Your task to perform on an android device: change notifications settings Image 0: 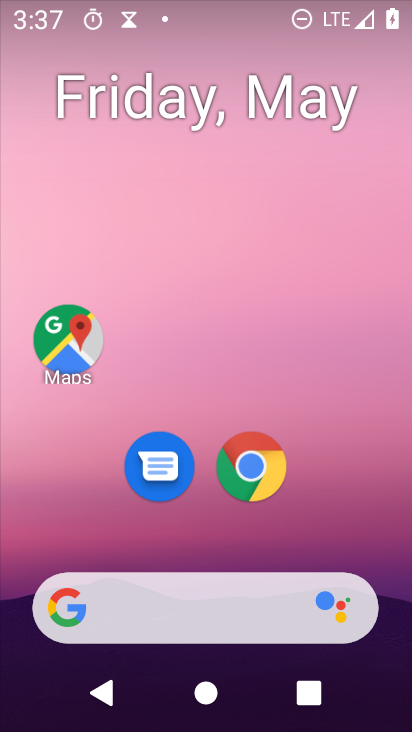
Step 0: drag from (382, 519) to (348, 58)
Your task to perform on an android device: change notifications settings Image 1: 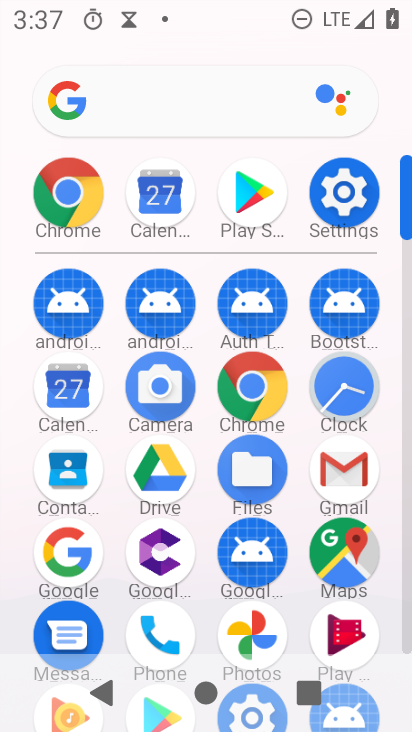
Step 1: click (334, 186)
Your task to perform on an android device: change notifications settings Image 2: 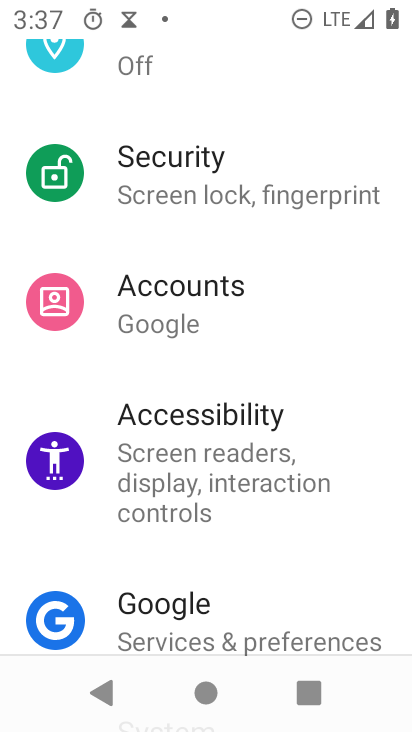
Step 2: drag from (216, 221) to (224, 577)
Your task to perform on an android device: change notifications settings Image 3: 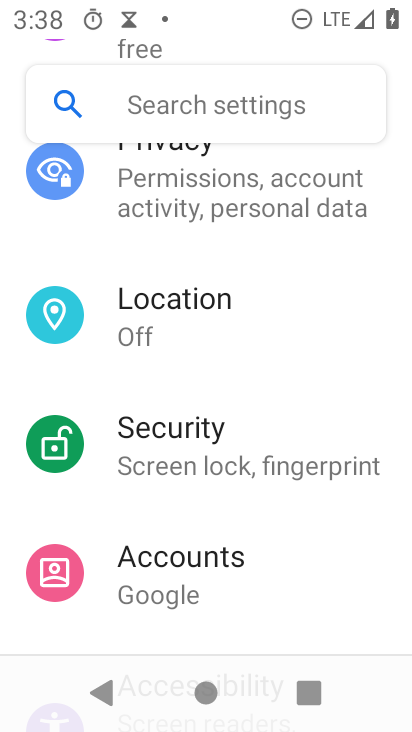
Step 3: drag from (261, 251) to (287, 597)
Your task to perform on an android device: change notifications settings Image 4: 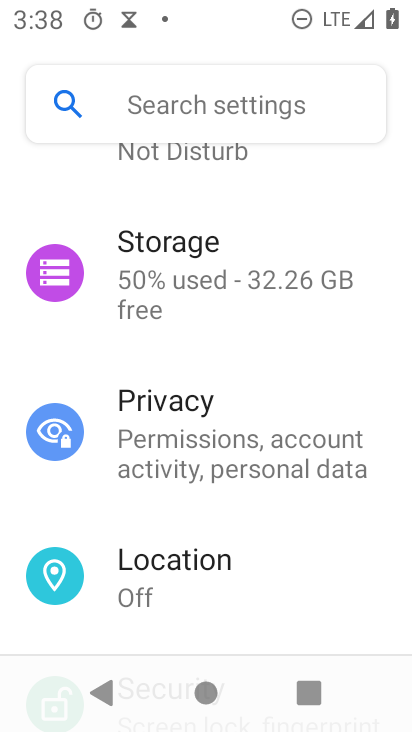
Step 4: drag from (257, 247) to (277, 638)
Your task to perform on an android device: change notifications settings Image 5: 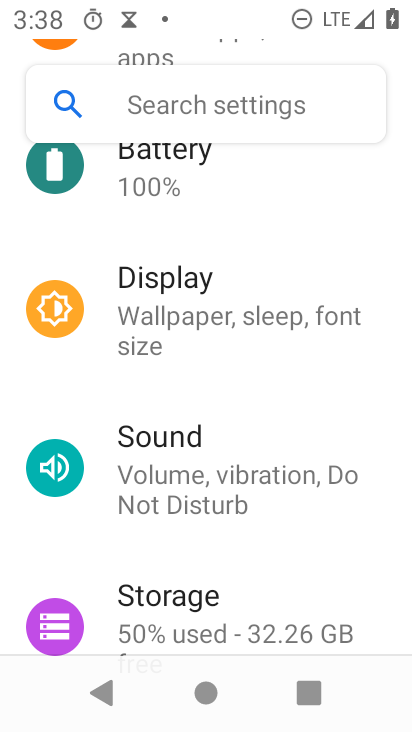
Step 5: drag from (247, 202) to (268, 699)
Your task to perform on an android device: change notifications settings Image 6: 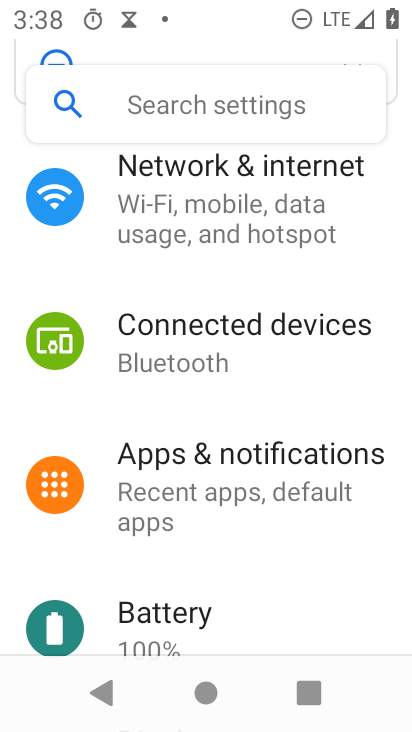
Step 6: click (273, 448)
Your task to perform on an android device: change notifications settings Image 7: 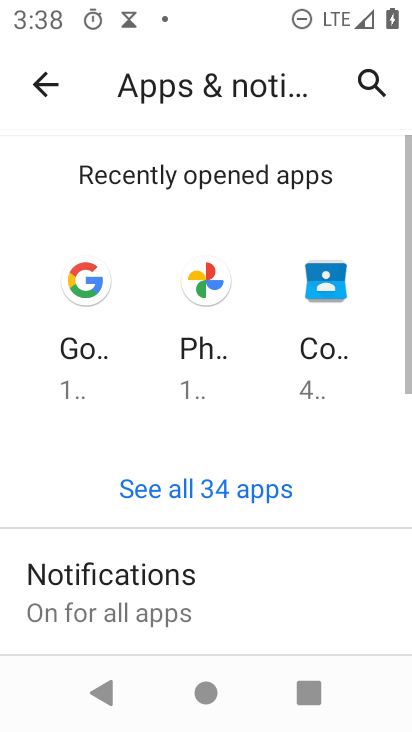
Step 7: drag from (223, 590) to (241, 232)
Your task to perform on an android device: change notifications settings Image 8: 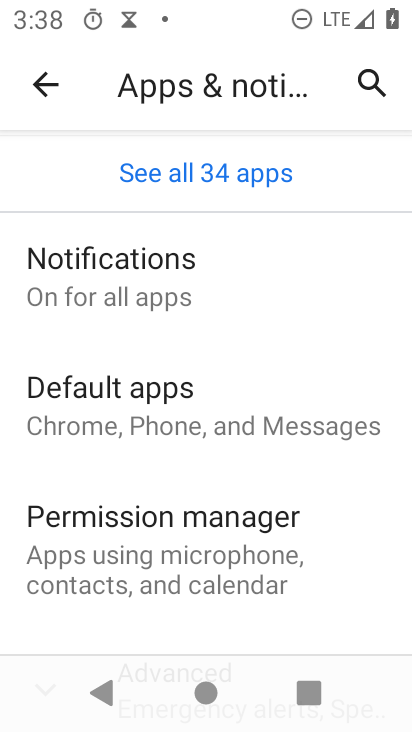
Step 8: drag from (217, 561) to (235, 385)
Your task to perform on an android device: change notifications settings Image 9: 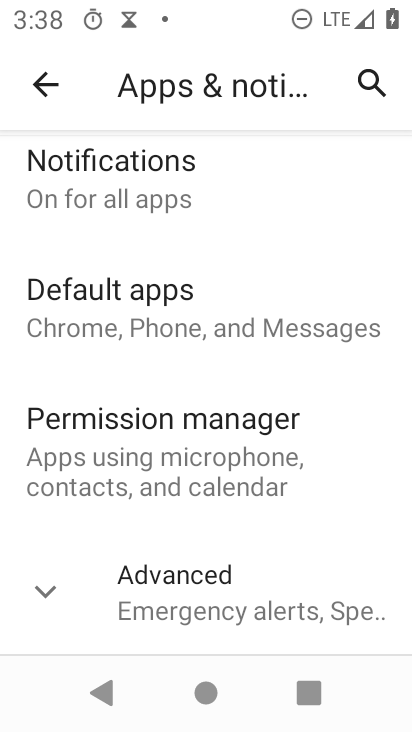
Step 9: drag from (208, 243) to (230, 570)
Your task to perform on an android device: change notifications settings Image 10: 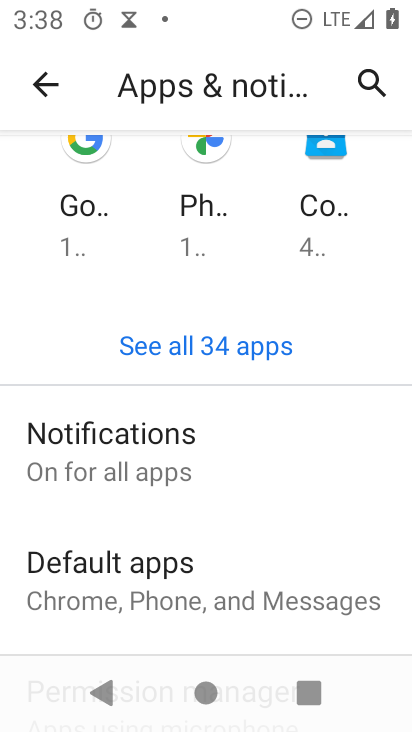
Step 10: click (138, 462)
Your task to perform on an android device: change notifications settings Image 11: 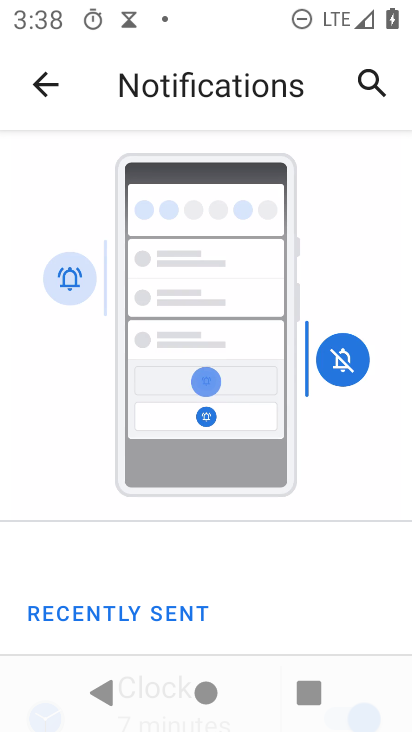
Step 11: drag from (206, 612) to (220, 282)
Your task to perform on an android device: change notifications settings Image 12: 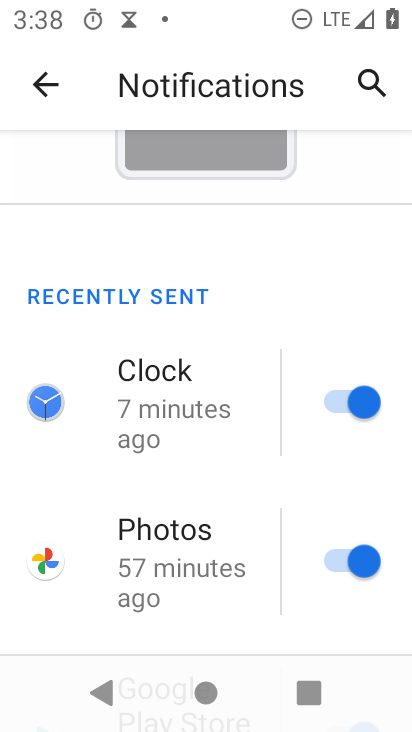
Step 12: drag from (245, 503) to (217, 201)
Your task to perform on an android device: change notifications settings Image 13: 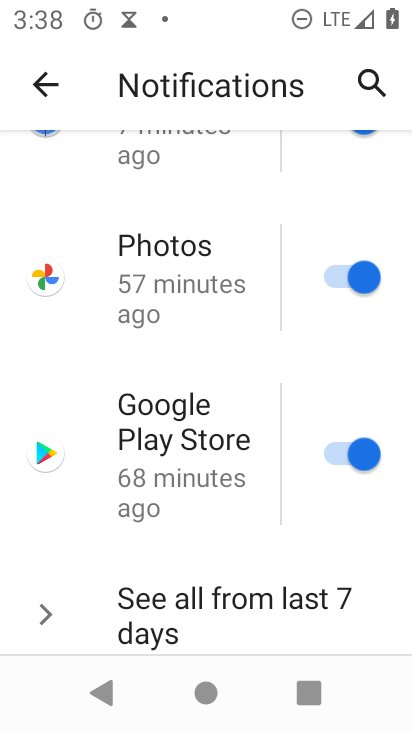
Step 13: drag from (165, 558) to (137, 188)
Your task to perform on an android device: change notifications settings Image 14: 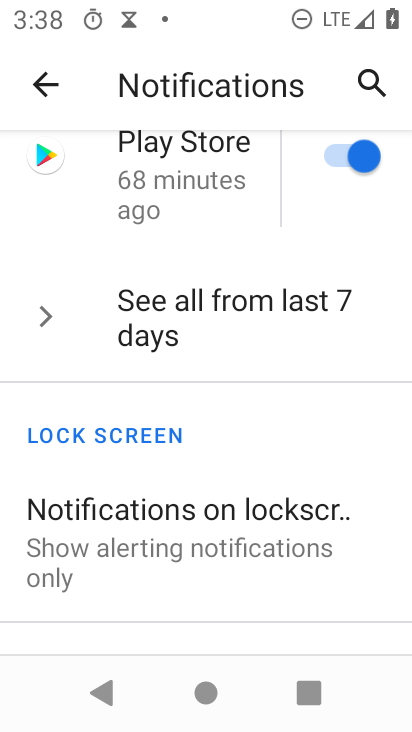
Step 14: drag from (135, 573) to (146, 229)
Your task to perform on an android device: change notifications settings Image 15: 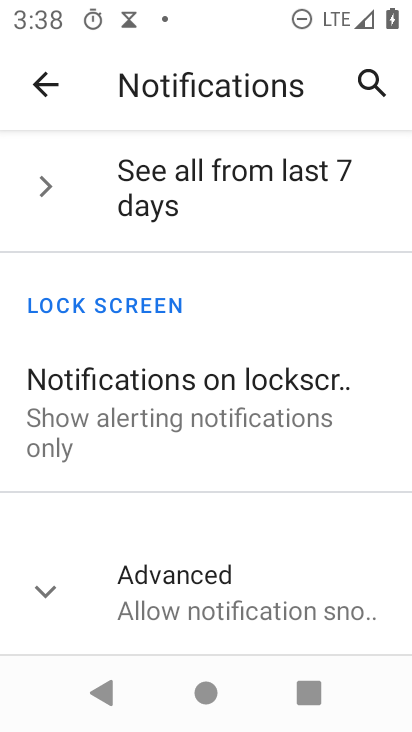
Step 15: click (199, 590)
Your task to perform on an android device: change notifications settings Image 16: 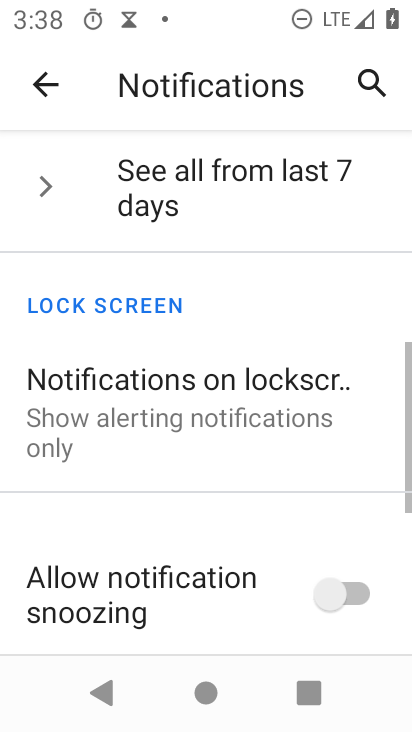
Step 16: task complete